Your task to perform on an android device: Open Amazon Image 0: 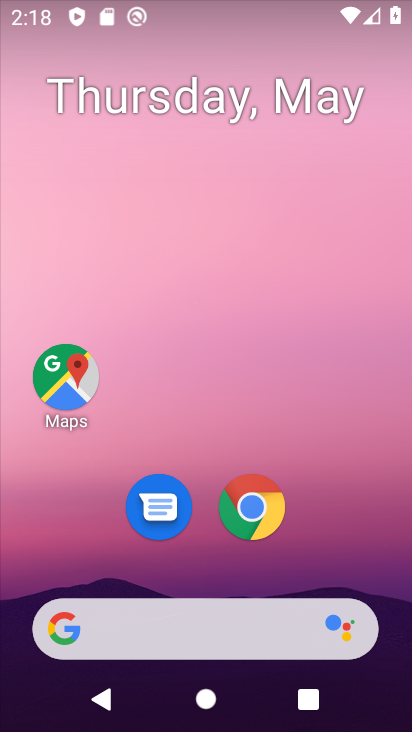
Step 0: click (259, 474)
Your task to perform on an android device: Open Amazon Image 1: 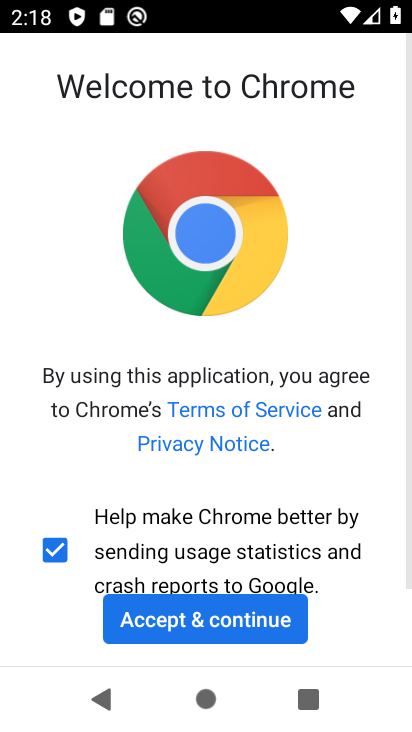
Step 1: click (240, 527)
Your task to perform on an android device: Open Amazon Image 2: 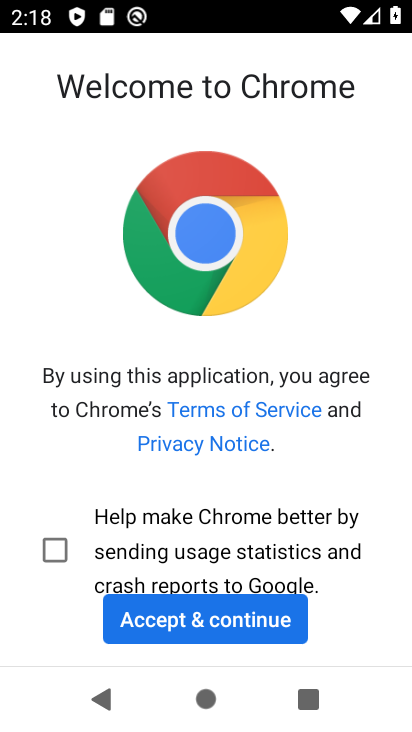
Step 2: click (192, 642)
Your task to perform on an android device: Open Amazon Image 3: 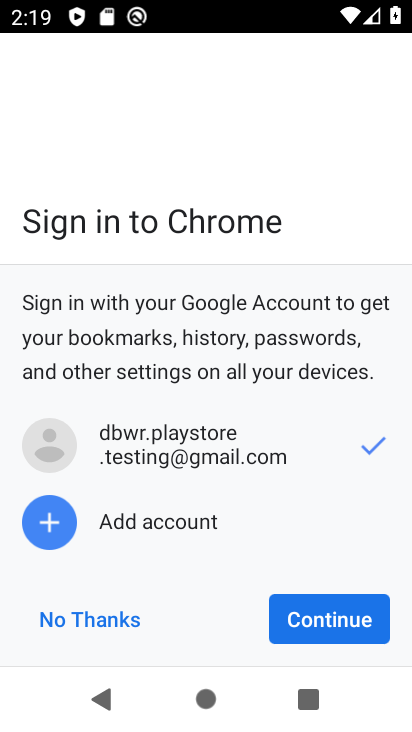
Step 3: click (300, 607)
Your task to perform on an android device: Open Amazon Image 4: 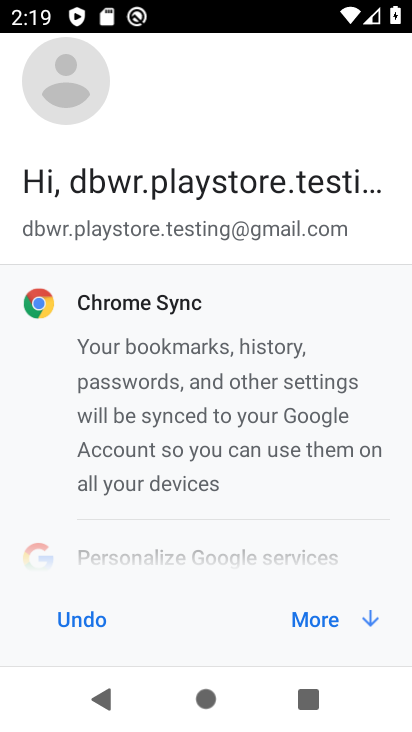
Step 4: click (334, 617)
Your task to perform on an android device: Open Amazon Image 5: 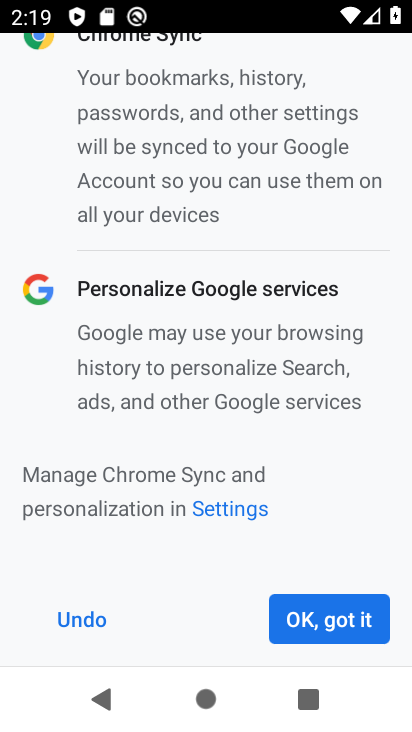
Step 5: click (334, 617)
Your task to perform on an android device: Open Amazon Image 6: 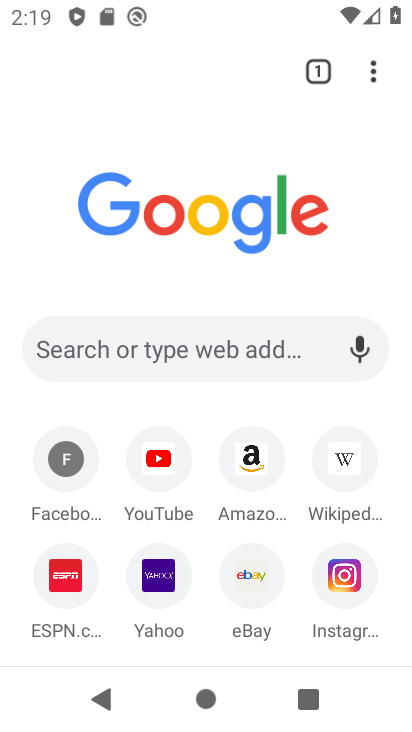
Step 6: click (267, 488)
Your task to perform on an android device: Open Amazon Image 7: 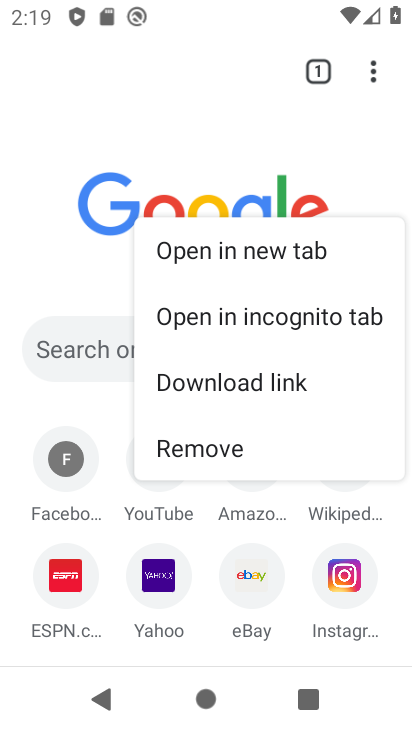
Step 7: click (236, 494)
Your task to perform on an android device: Open Amazon Image 8: 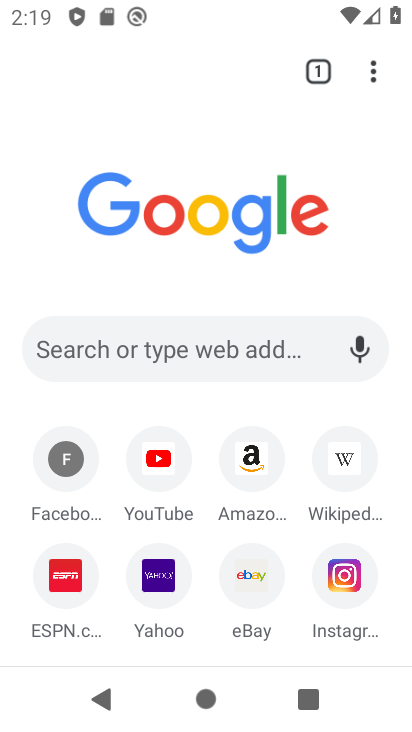
Step 8: click (258, 496)
Your task to perform on an android device: Open Amazon Image 9: 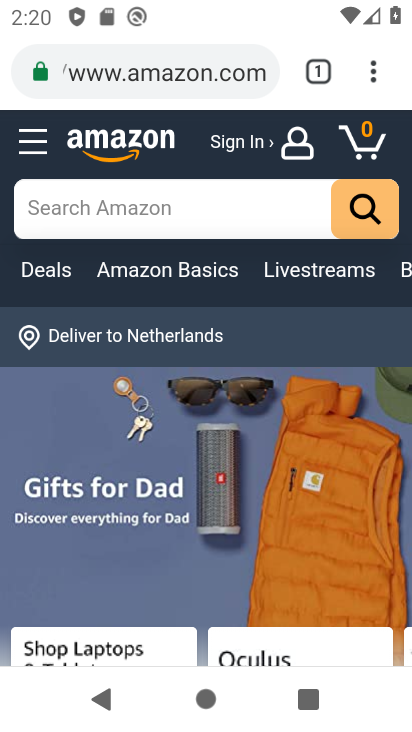
Step 9: task complete